Your task to perform on an android device: Open calendar and show me the fourth week of next month Image 0: 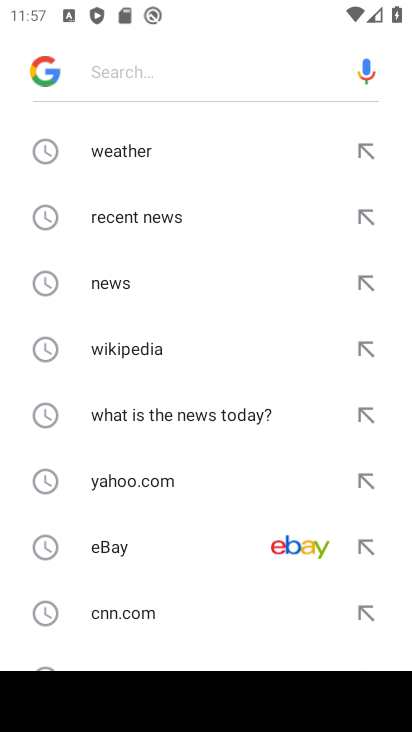
Step 0: press home button
Your task to perform on an android device: Open calendar and show me the fourth week of next month Image 1: 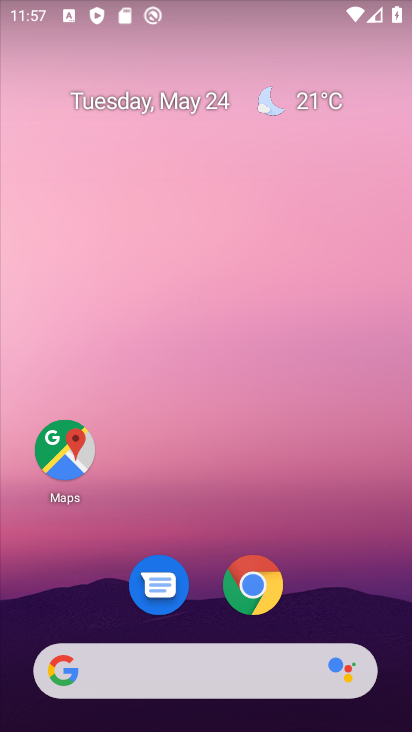
Step 1: drag from (197, 475) to (245, 62)
Your task to perform on an android device: Open calendar and show me the fourth week of next month Image 2: 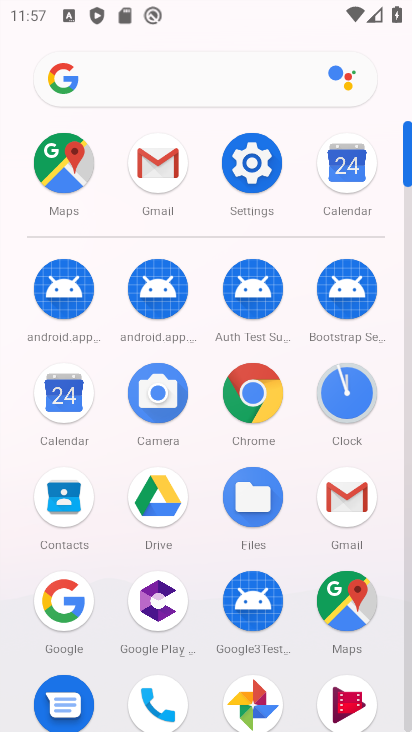
Step 2: click (347, 160)
Your task to perform on an android device: Open calendar and show me the fourth week of next month Image 3: 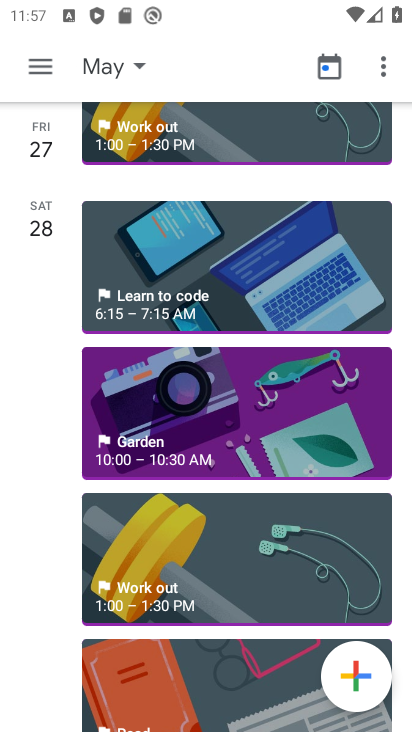
Step 3: click (42, 62)
Your task to perform on an android device: Open calendar and show me the fourth week of next month Image 4: 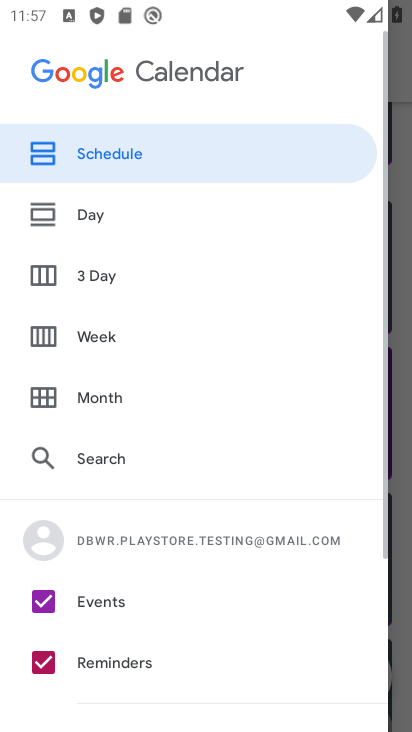
Step 4: click (47, 392)
Your task to perform on an android device: Open calendar and show me the fourth week of next month Image 5: 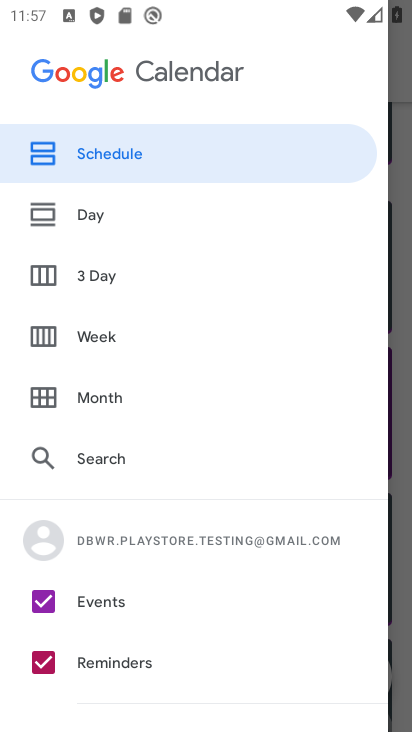
Step 5: click (47, 391)
Your task to perform on an android device: Open calendar and show me the fourth week of next month Image 6: 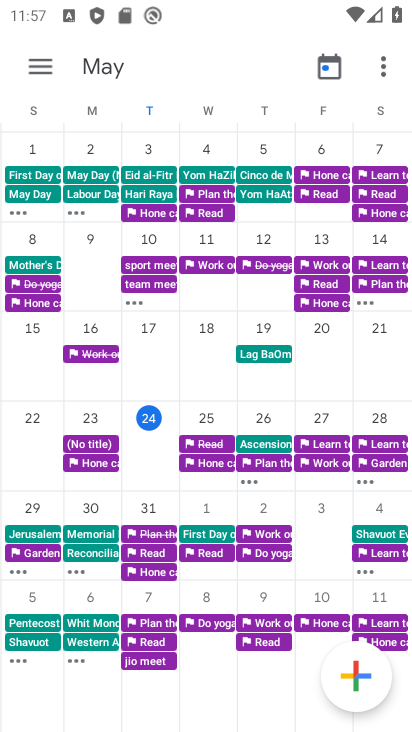
Step 6: drag from (361, 370) to (4, 423)
Your task to perform on an android device: Open calendar and show me the fourth week of next month Image 7: 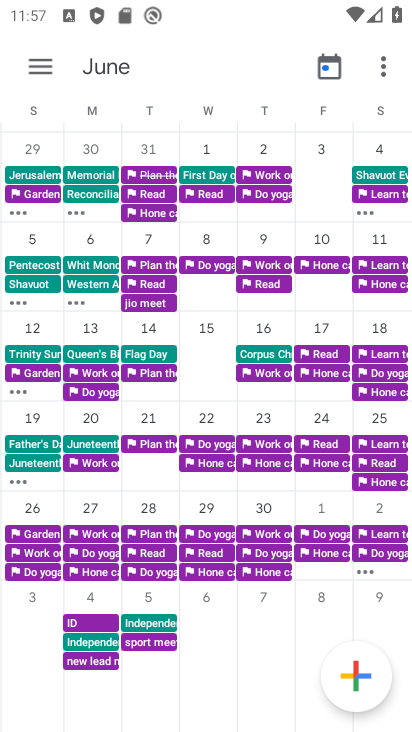
Step 7: click (44, 511)
Your task to perform on an android device: Open calendar and show me the fourth week of next month Image 8: 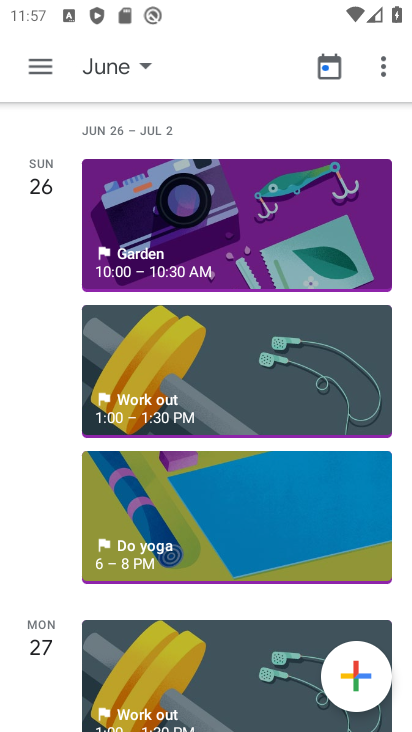
Step 8: click (46, 59)
Your task to perform on an android device: Open calendar and show me the fourth week of next month Image 9: 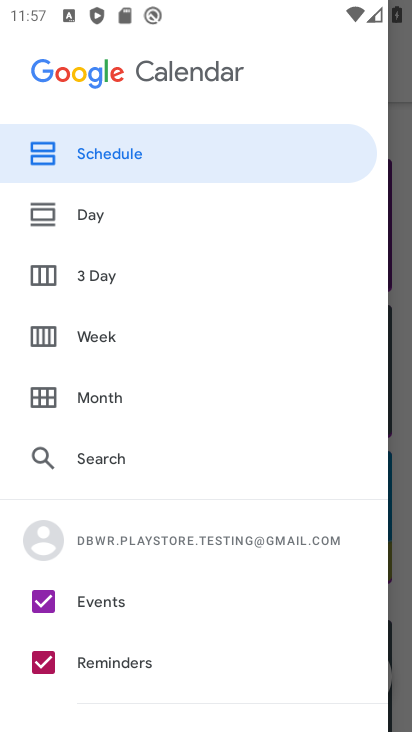
Step 9: click (41, 332)
Your task to perform on an android device: Open calendar and show me the fourth week of next month Image 10: 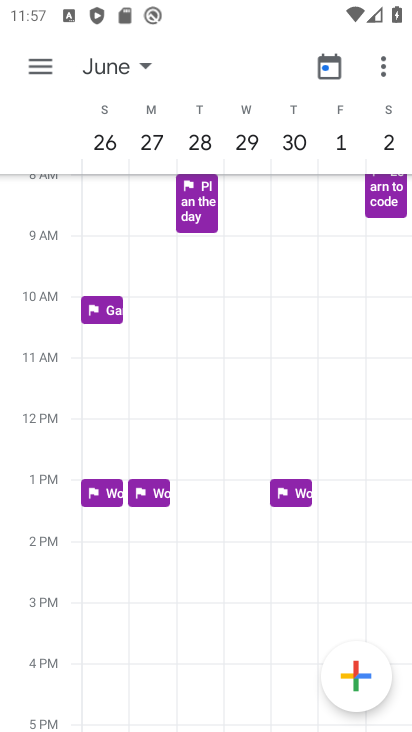
Step 10: task complete